Your task to perform on an android device: Search for vegetarian restaurants on Maps Image 0: 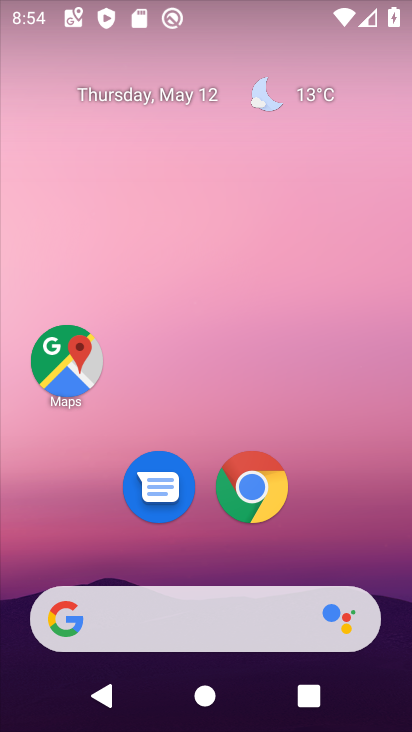
Step 0: click (76, 359)
Your task to perform on an android device: Search for vegetarian restaurants on Maps Image 1: 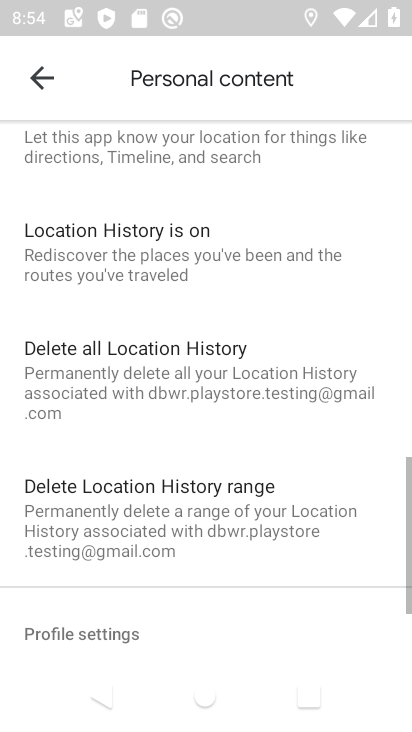
Step 1: click (31, 84)
Your task to perform on an android device: Search for vegetarian restaurants on Maps Image 2: 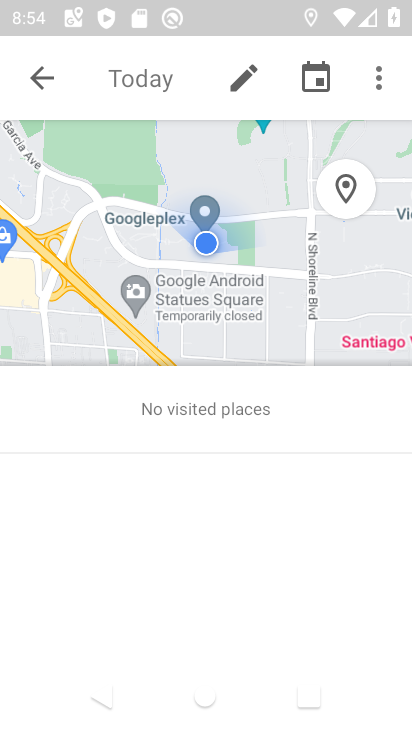
Step 2: click (31, 84)
Your task to perform on an android device: Search for vegetarian restaurants on Maps Image 3: 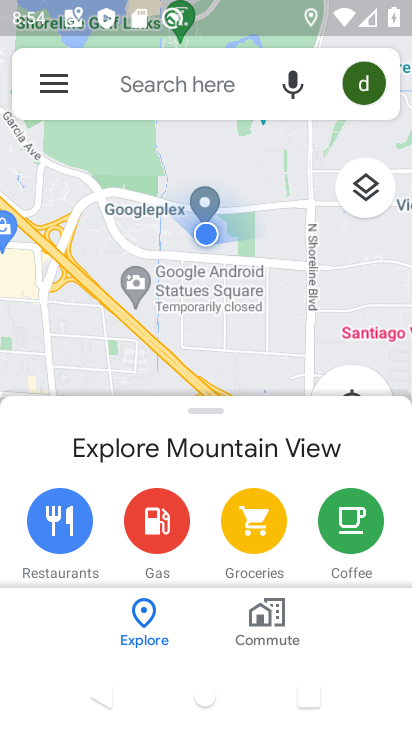
Step 3: click (128, 84)
Your task to perform on an android device: Search for vegetarian restaurants on Maps Image 4: 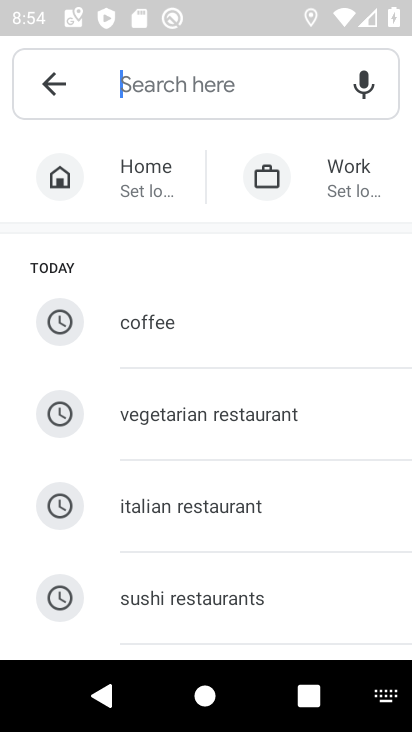
Step 4: type "vegetarian restaurant"
Your task to perform on an android device: Search for vegetarian restaurants on Maps Image 5: 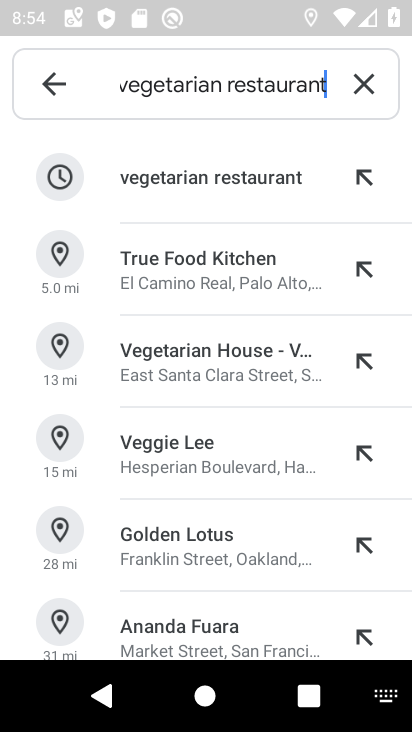
Step 5: click (238, 178)
Your task to perform on an android device: Search for vegetarian restaurants on Maps Image 6: 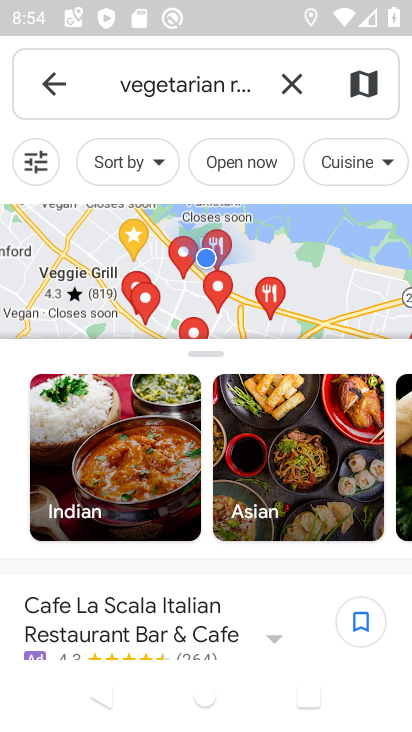
Step 6: task complete